Your task to perform on an android device: Open Google Maps and go to "Timeline" Image 0: 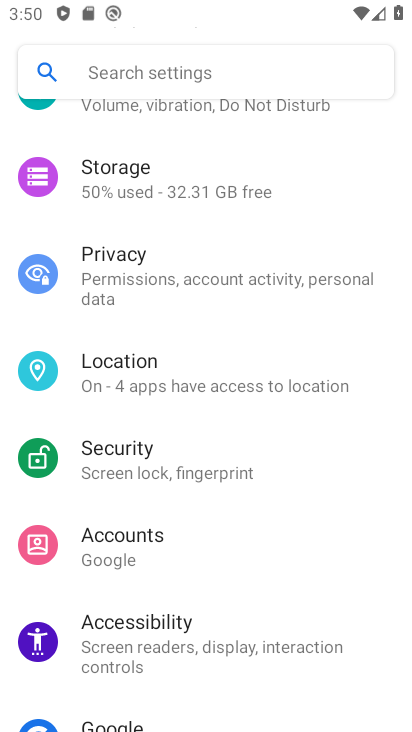
Step 0: press home button
Your task to perform on an android device: Open Google Maps and go to "Timeline" Image 1: 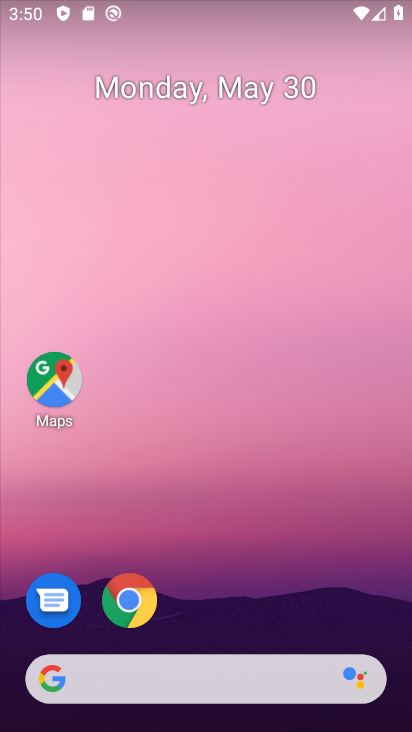
Step 1: click (51, 386)
Your task to perform on an android device: Open Google Maps and go to "Timeline" Image 2: 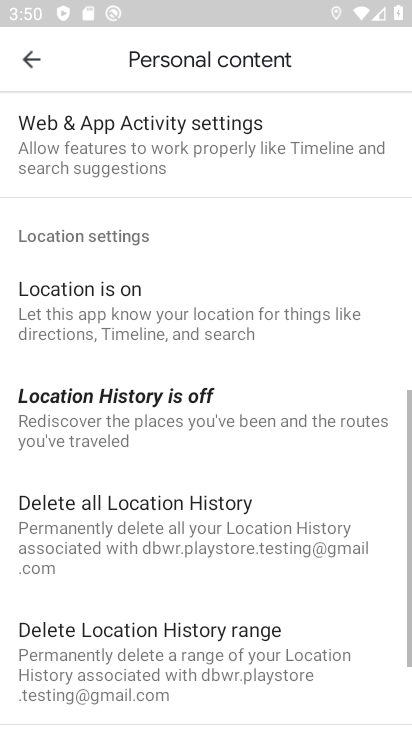
Step 2: click (28, 61)
Your task to perform on an android device: Open Google Maps and go to "Timeline" Image 3: 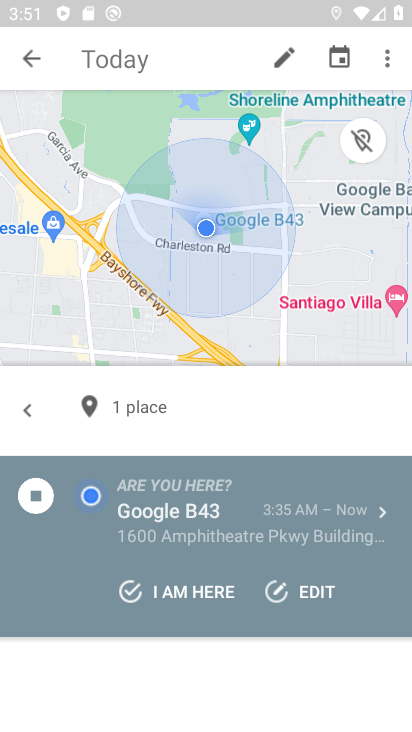
Step 3: task complete